Your task to perform on an android device: check the backup settings in the google photos Image 0: 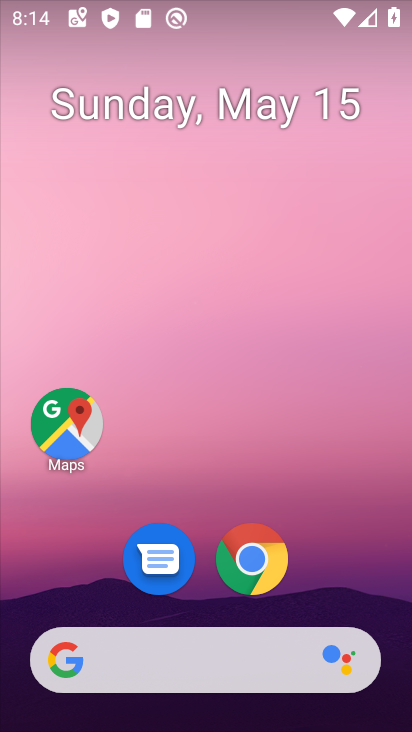
Step 0: drag from (394, 595) to (260, 204)
Your task to perform on an android device: check the backup settings in the google photos Image 1: 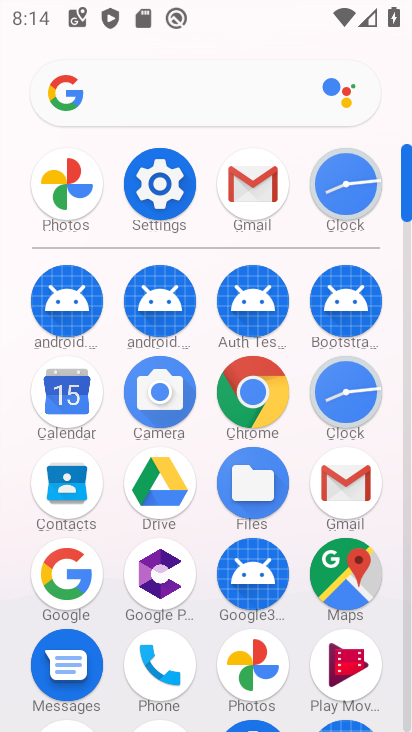
Step 1: click (267, 650)
Your task to perform on an android device: check the backup settings in the google photos Image 2: 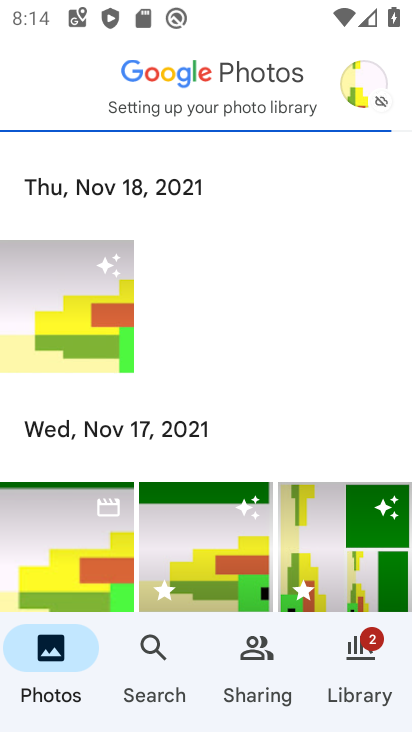
Step 2: click (360, 80)
Your task to perform on an android device: check the backup settings in the google photos Image 3: 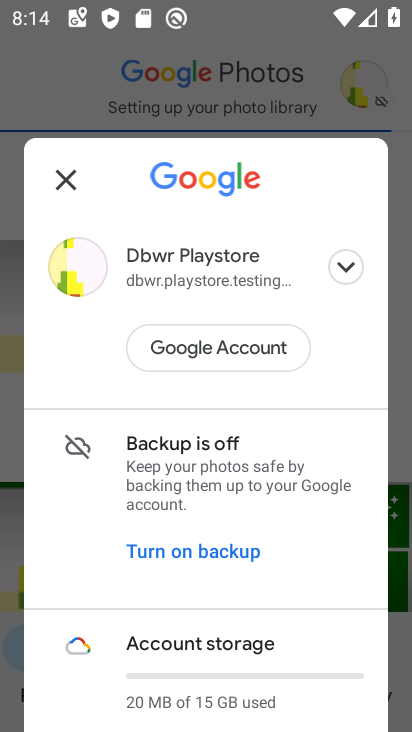
Step 3: drag from (235, 508) to (234, 455)
Your task to perform on an android device: check the backup settings in the google photos Image 4: 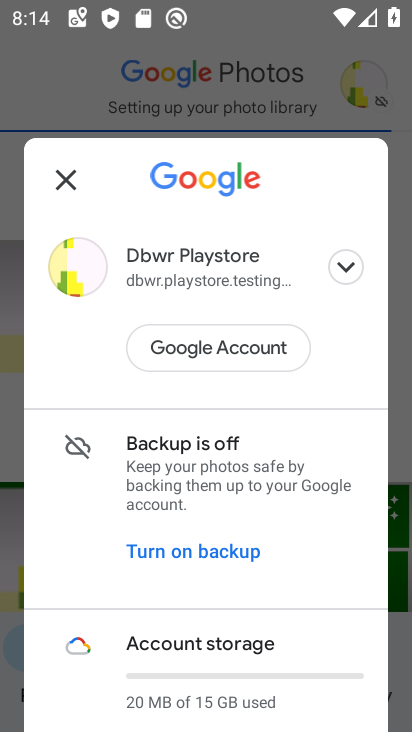
Step 4: click (234, 455)
Your task to perform on an android device: check the backup settings in the google photos Image 5: 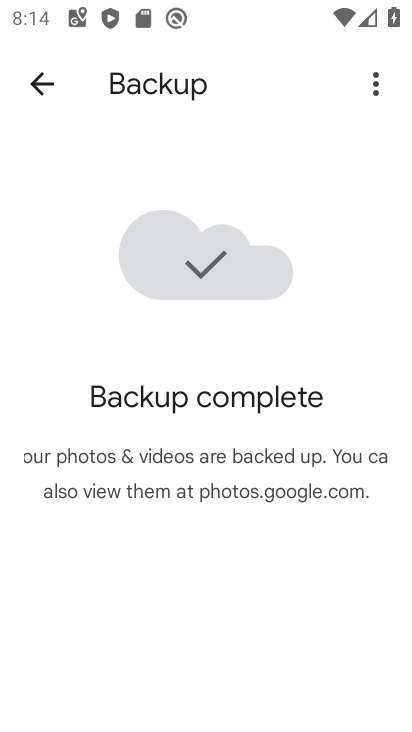
Step 5: click (32, 94)
Your task to perform on an android device: check the backup settings in the google photos Image 6: 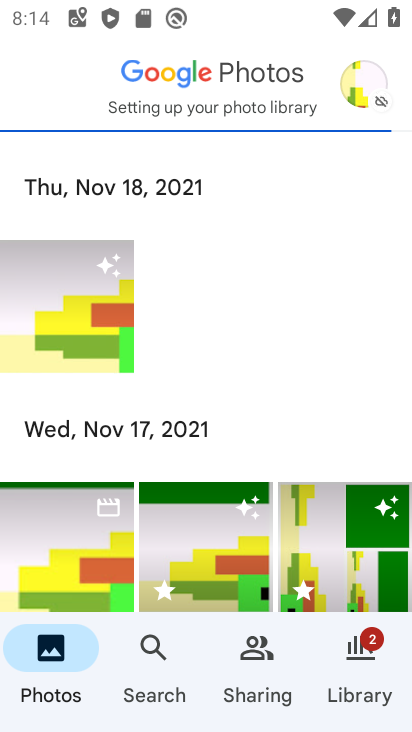
Step 6: click (372, 681)
Your task to perform on an android device: check the backup settings in the google photos Image 7: 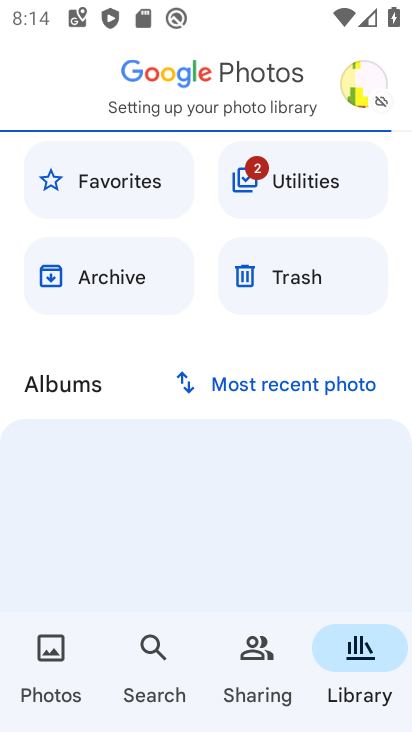
Step 7: click (356, 84)
Your task to perform on an android device: check the backup settings in the google photos Image 8: 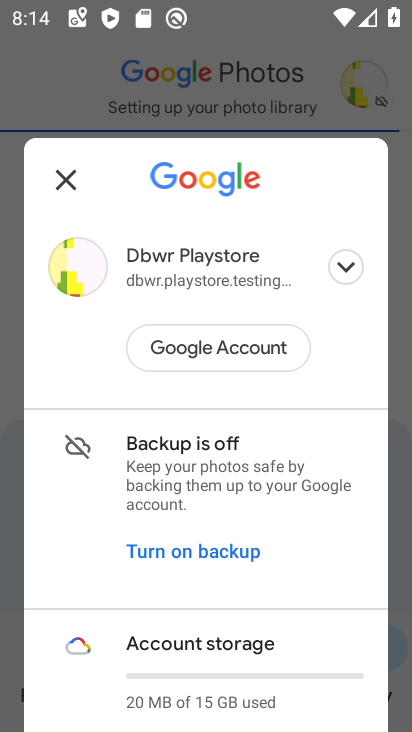
Step 8: task complete